Your task to perform on an android device: turn on priority inbox in the gmail app Image 0: 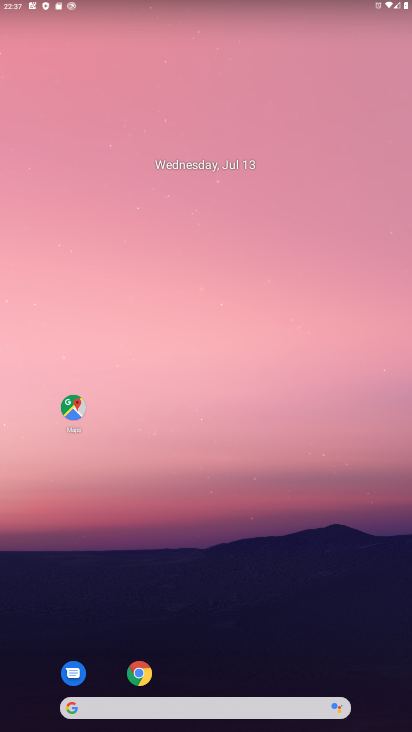
Step 0: drag from (190, 688) to (201, 126)
Your task to perform on an android device: turn on priority inbox in the gmail app Image 1: 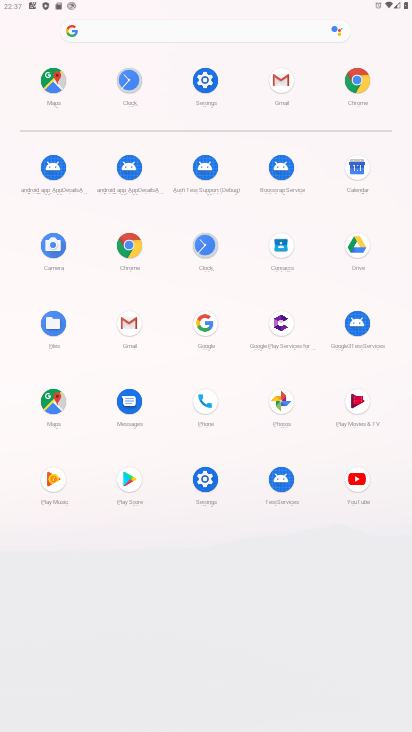
Step 1: click (131, 322)
Your task to perform on an android device: turn on priority inbox in the gmail app Image 2: 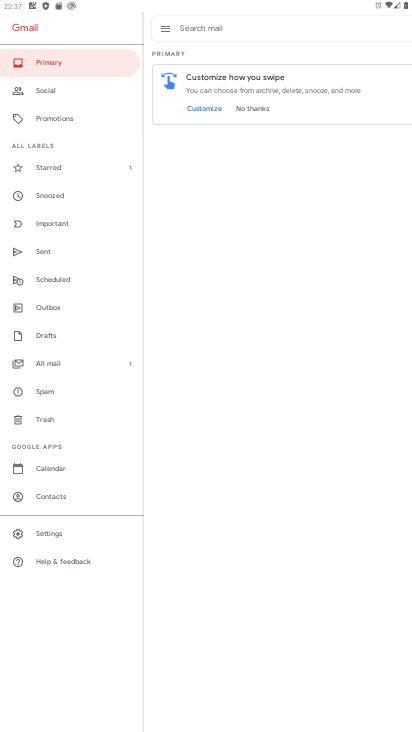
Step 2: click (47, 530)
Your task to perform on an android device: turn on priority inbox in the gmail app Image 3: 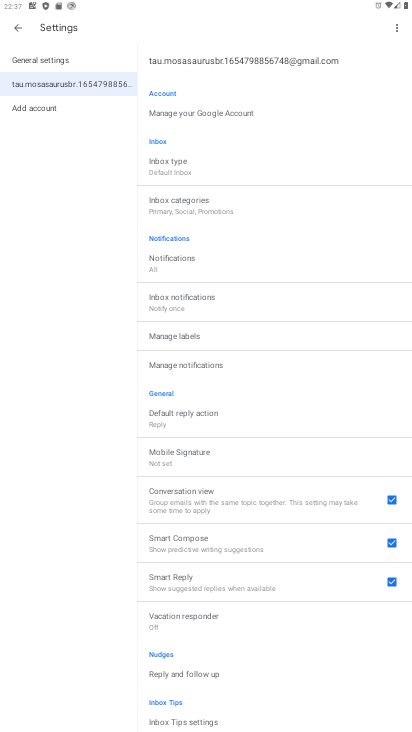
Step 3: click (159, 162)
Your task to perform on an android device: turn on priority inbox in the gmail app Image 4: 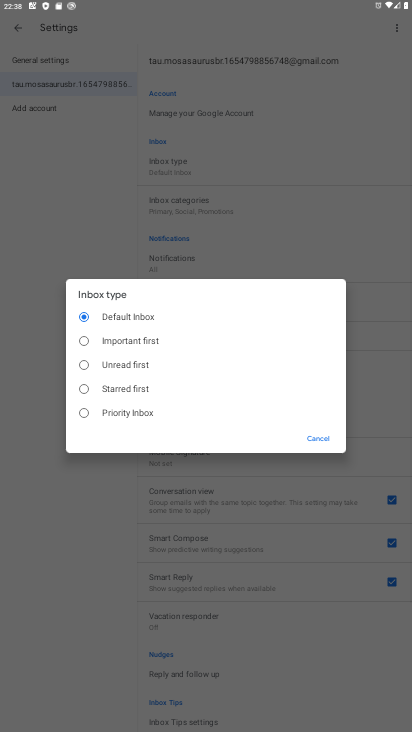
Step 4: click (145, 414)
Your task to perform on an android device: turn on priority inbox in the gmail app Image 5: 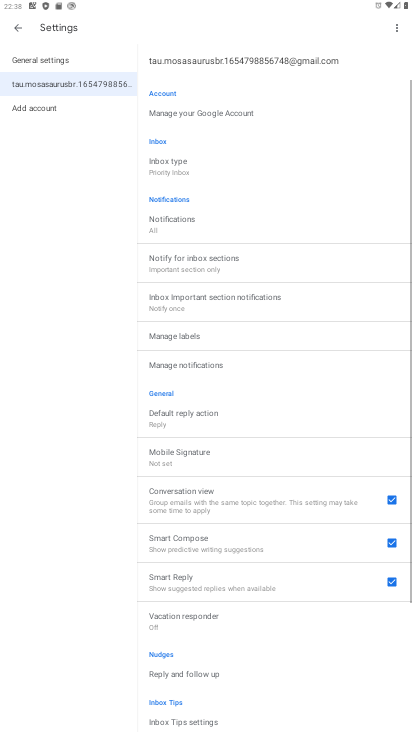
Step 5: task complete